Your task to perform on an android device: Go to wifi settings Image 0: 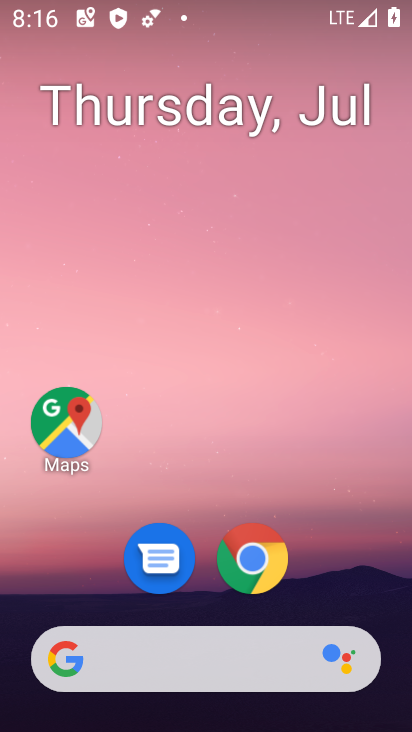
Step 0: drag from (275, 666) to (387, 253)
Your task to perform on an android device: Go to wifi settings Image 1: 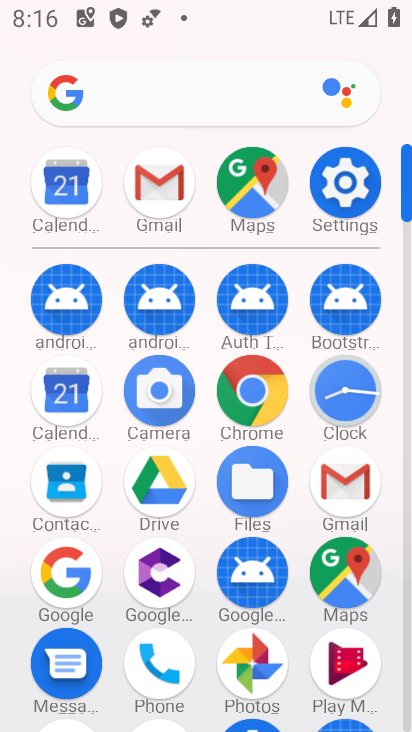
Step 1: click (360, 191)
Your task to perform on an android device: Go to wifi settings Image 2: 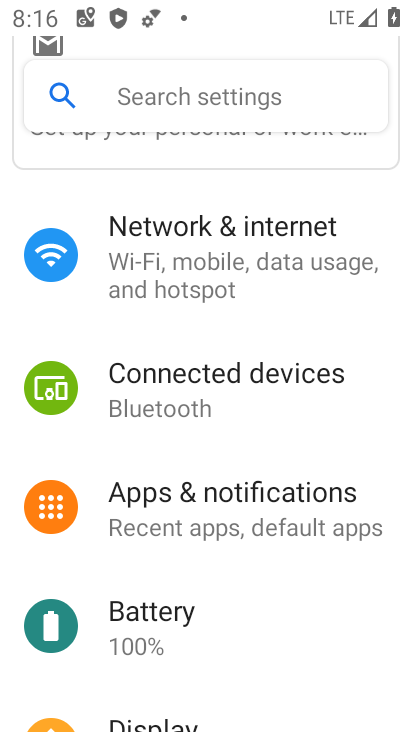
Step 2: drag from (264, 368) to (186, 707)
Your task to perform on an android device: Go to wifi settings Image 3: 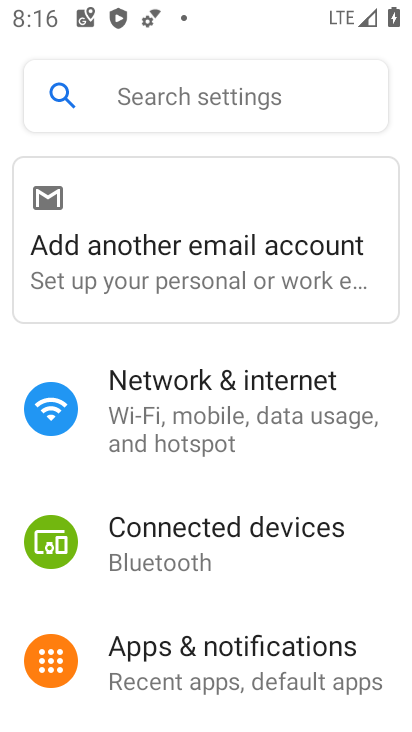
Step 3: click (244, 401)
Your task to perform on an android device: Go to wifi settings Image 4: 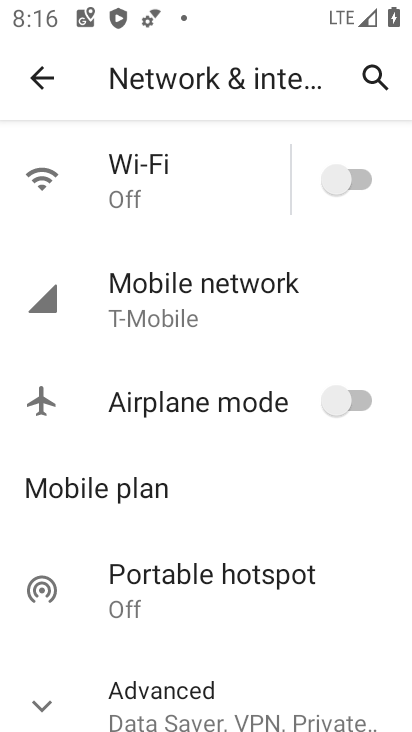
Step 4: click (178, 178)
Your task to perform on an android device: Go to wifi settings Image 5: 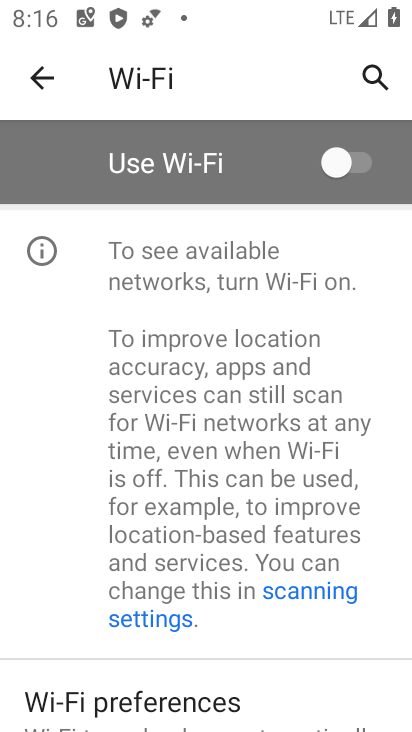
Step 5: task complete